Your task to perform on an android device: Turn off the flashlight Image 0: 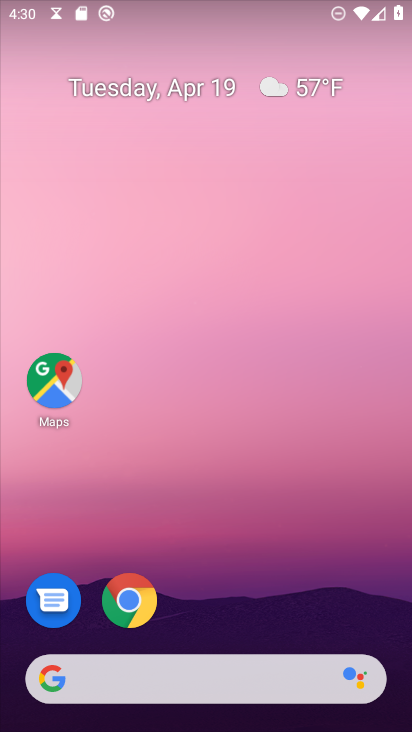
Step 0: drag from (319, 13) to (355, 486)
Your task to perform on an android device: Turn off the flashlight Image 1: 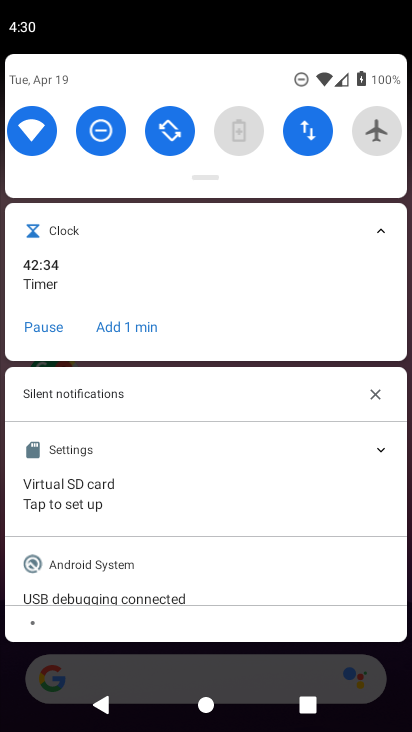
Step 1: drag from (270, 158) to (270, 726)
Your task to perform on an android device: Turn off the flashlight Image 2: 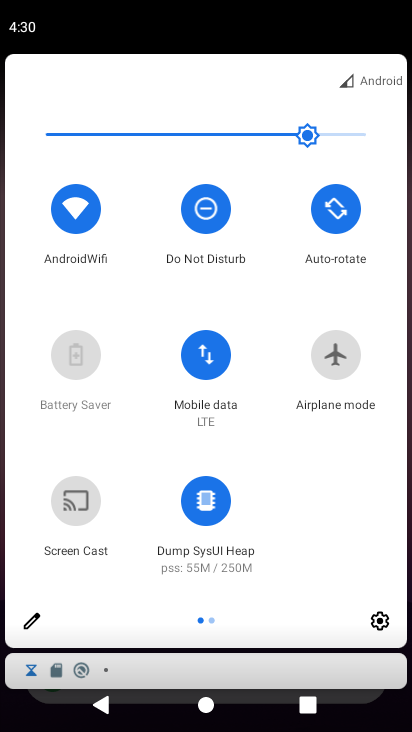
Step 2: drag from (359, 562) to (27, 525)
Your task to perform on an android device: Turn off the flashlight Image 3: 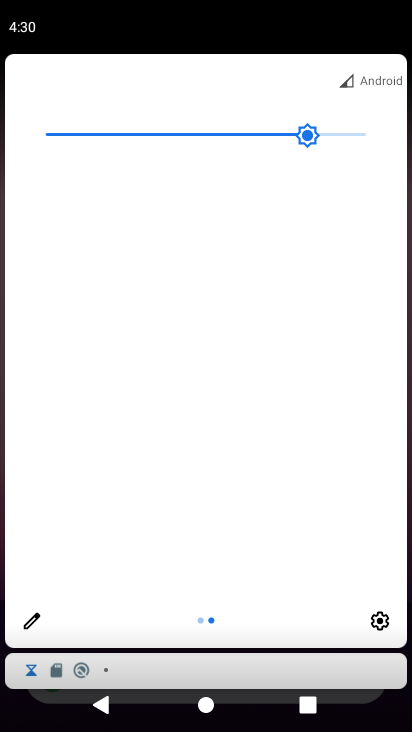
Step 3: click (37, 626)
Your task to perform on an android device: Turn off the flashlight Image 4: 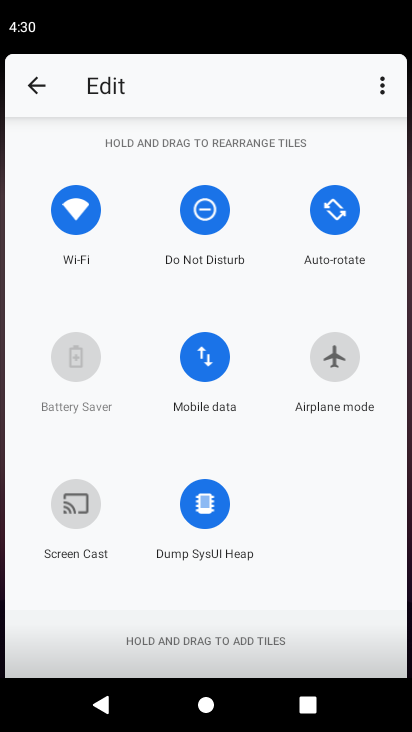
Step 4: task complete